Your task to perform on an android device: change keyboard looks Image 0: 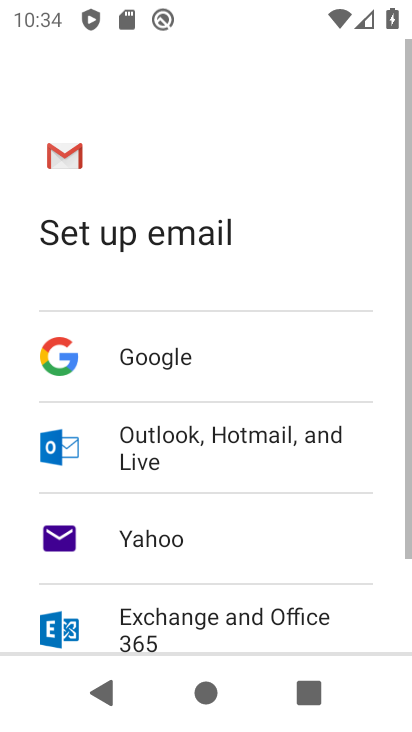
Step 0: press back button
Your task to perform on an android device: change keyboard looks Image 1: 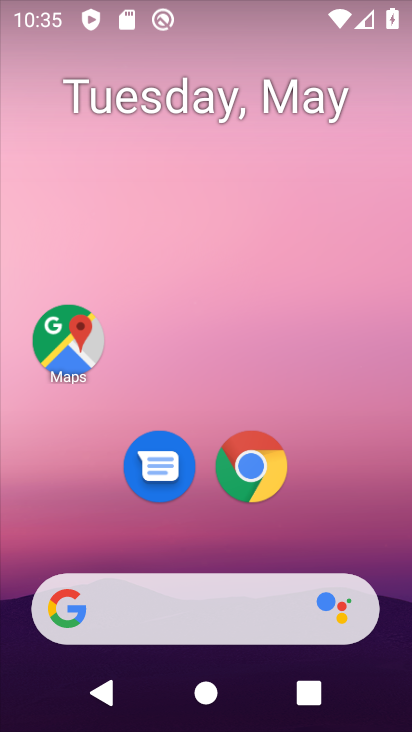
Step 1: drag from (232, 365) to (324, 35)
Your task to perform on an android device: change keyboard looks Image 2: 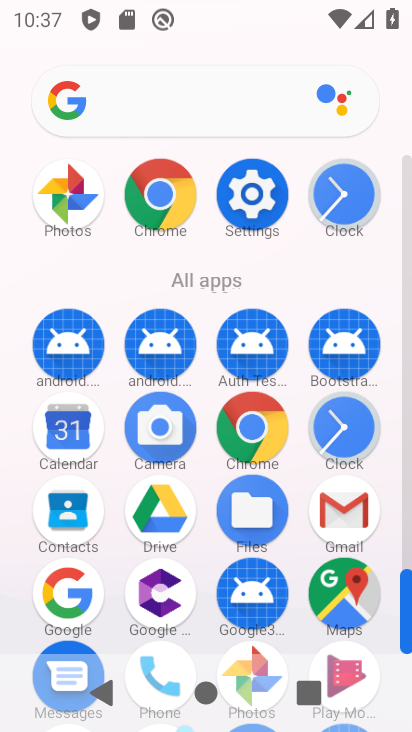
Step 2: click (253, 191)
Your task to perform on an android device: change keyboard looks Image 3: 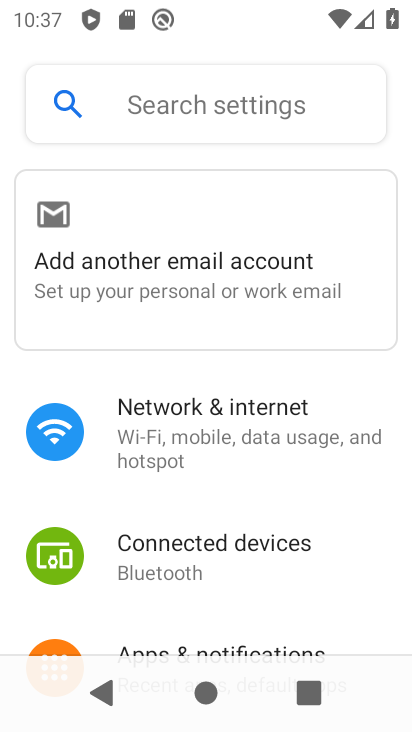
Step 3: drag from (200, 609) to (213, 54)
Your task to perform on an android device: change keyboard looks Image 4: 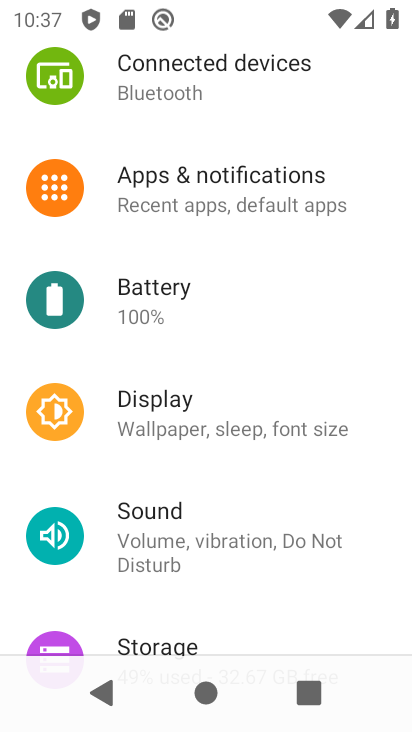
Step 4: drag from (162, 580) to (201, 48)
Your task to perform on an android device: change keyboard looks Image 5: 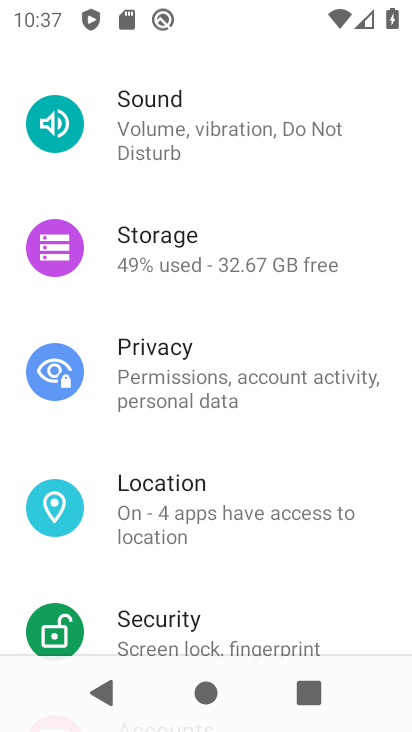
Step 5: drag from (196, 623) to (233, 26)
Your task to perform on an android device: change keyboard looks Image 6: 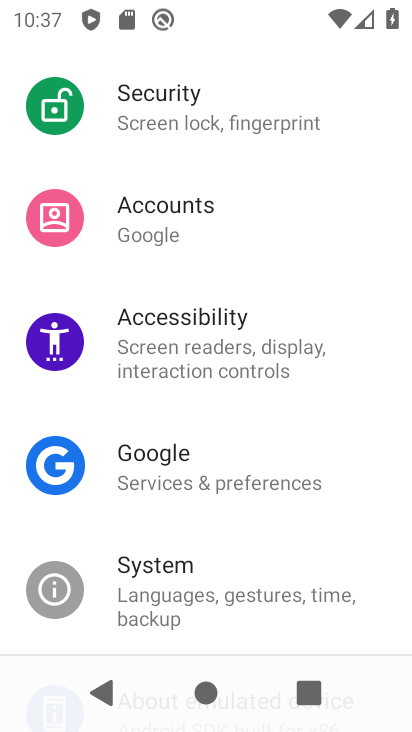
Step 6: drag from (207, 603) to (263, 49)
Your task to perform on an android device: change keyboard looks Image 7: 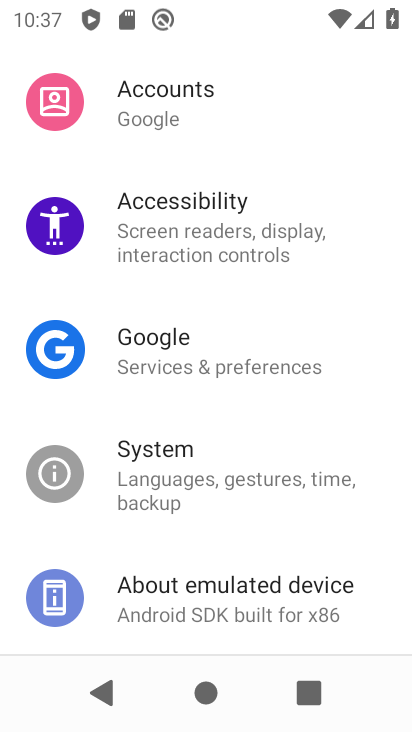
Step 7: click (181, 587)
Your task to perform on an android device: change keyboard looks Image 8: 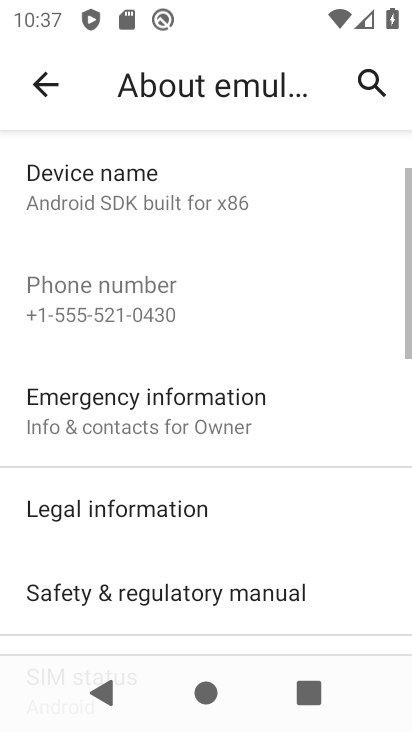
Step 8: click (49, 68)
Your task to perform on an android device: change keyboard looks Image 9: 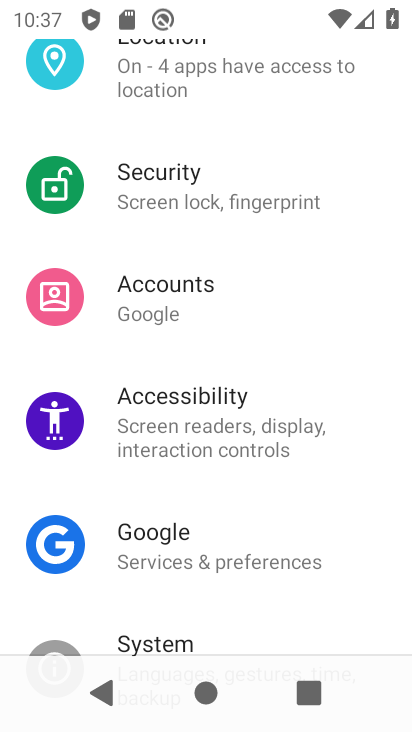
Step 9: click (147, 634)
Your task to perform on an android device: change keyboard looks Image 10: 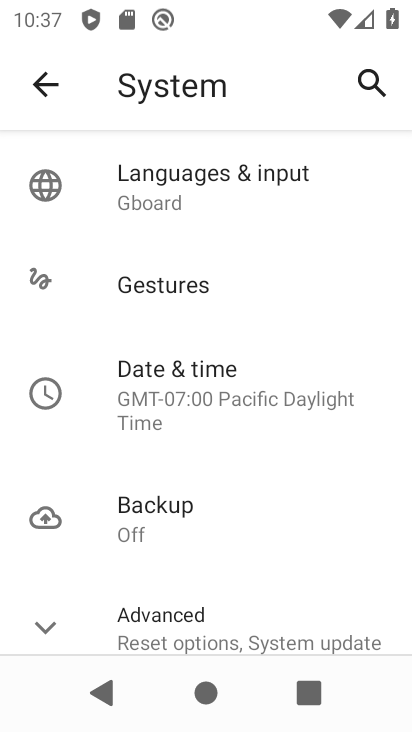
Step 10: click (152, 189)
Your task to perform on an android device: change keyboard looks Image 11: 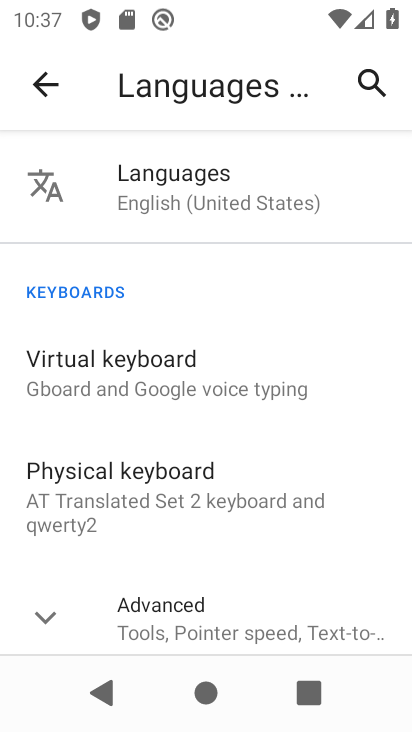
Step 11: click (125, 371)
Your task to perform on an android device: change keyboard looks Image 12: 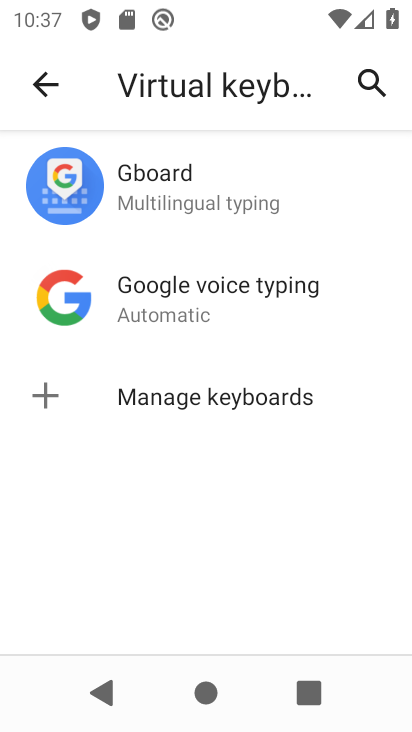
Step 12: click (171, 179)
Your task to perform on an android device: change keyboard looks Image 13: 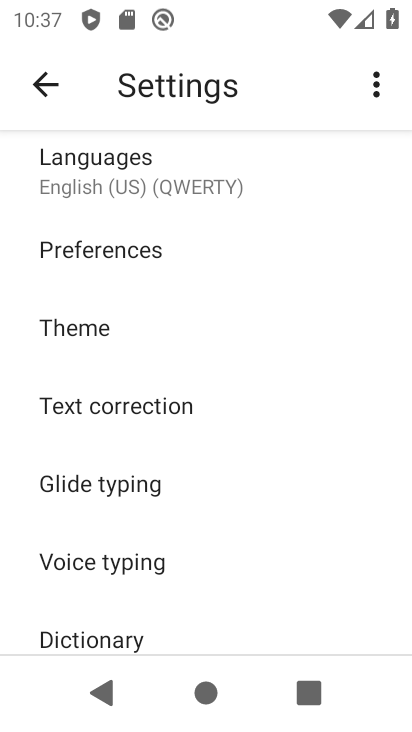
Step 13: click (100, 334)
Your task to perform on an android device: change keyboard looks Image 14: 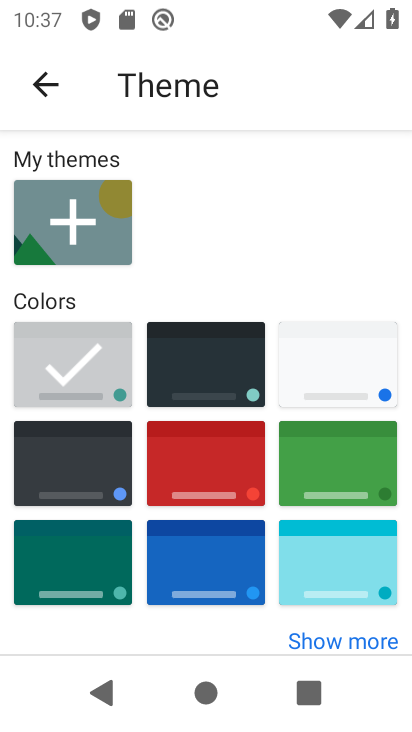
Step 14: click (195, 457)
Your task to perform on an android device: change keyboard looks Image 15: 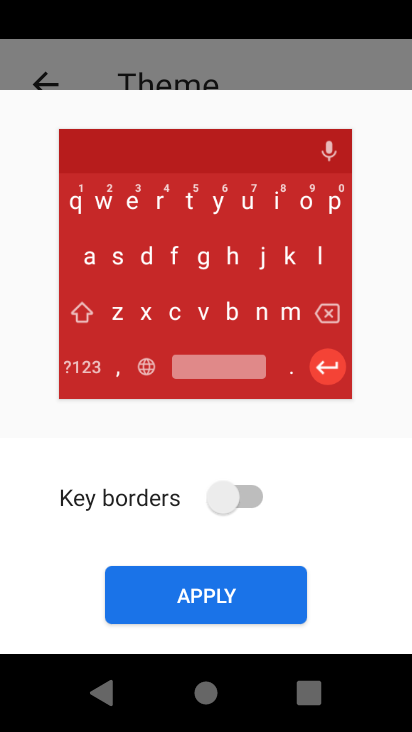
Step 15: click (244, 609)
Your task to perform on an android device: change keyboard looks Image 16: 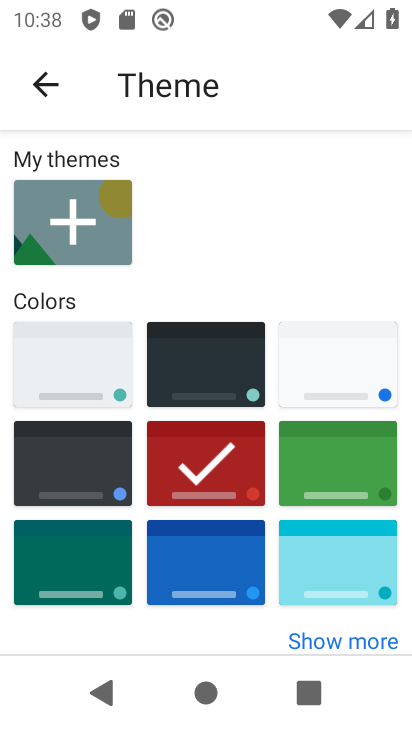
Step 16: task complete